Your task to perform on an android device: Open Chrome and go to the settings page Image 0: 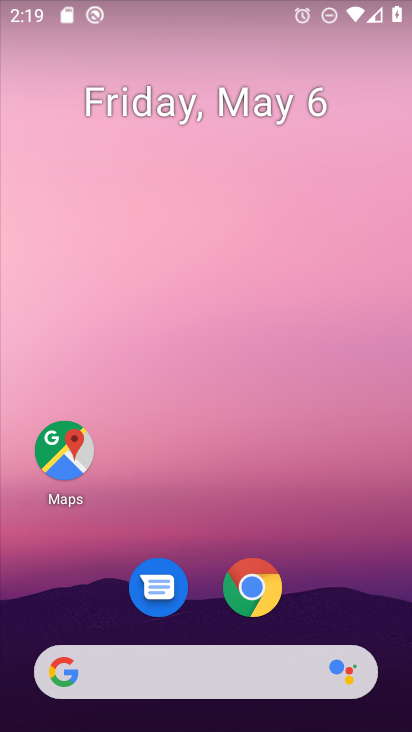
Step 0: click (246, 585)
Your task to perform on an android device: Open Chrome and go to the settings page Image 1: 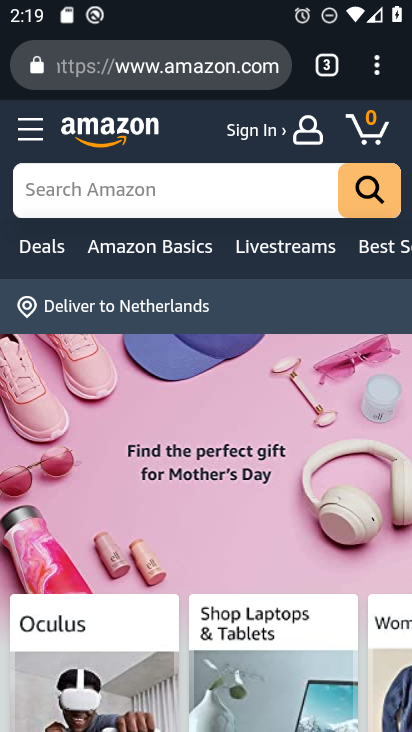
Step 1: task complete